Your task to perform on an android device: Open Yahoo.com Image 0: 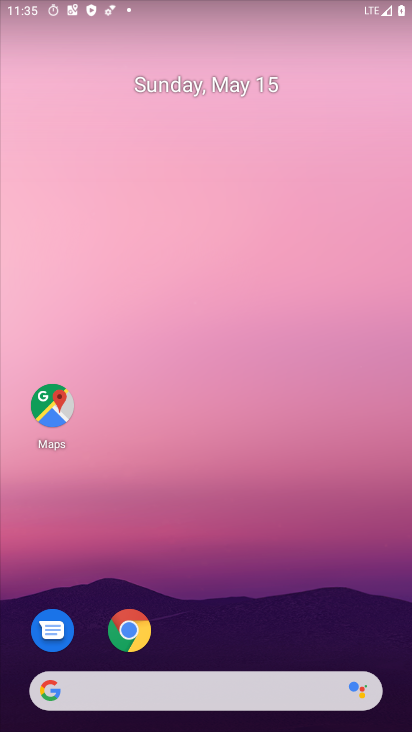
Step 0: click (128, 637)
Your task to perform on an android device: Open Yahoo.com Image 1: 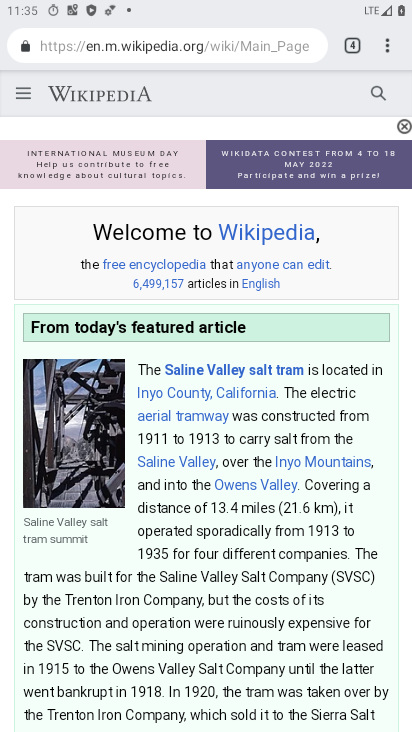
Step 1: click (361, 44)
Your task to perform on an android device: Open Yahoo.com Image 2: 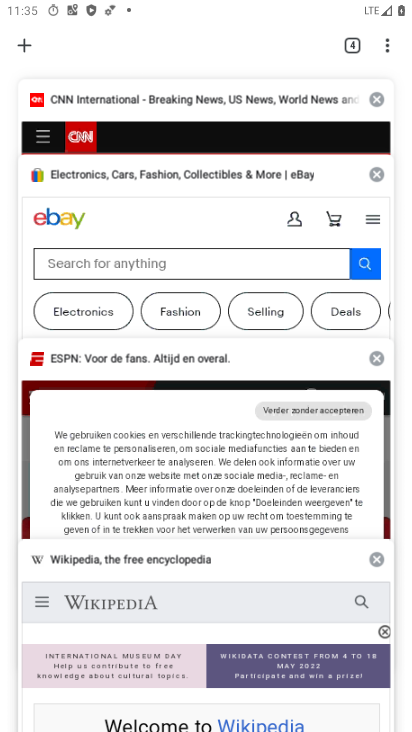
Step 2: click (19, 36)
Your task to perform on an android device: Open Yahoo.com Image 3: 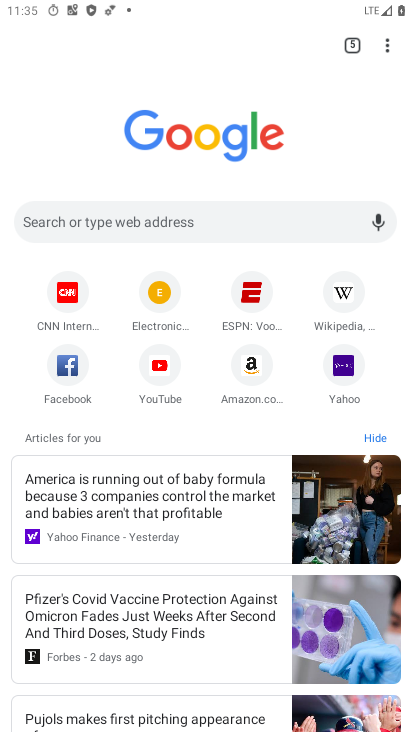
Step 3: click (341, 365)
Your task to perform on an android device: Open Yahoo.com Image 4: 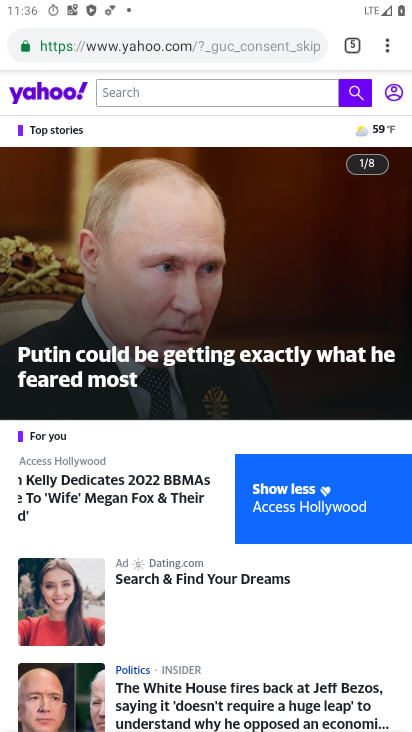
Step 4: task complete